Your task to perform on an android device: toggle data saver in the chrome app Image 0: 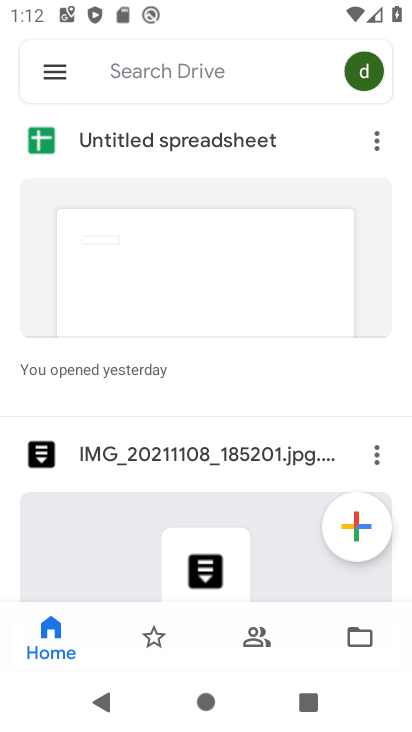
Step 0: press home button
Your task to perform on an android device: toggle data saver in the chrome app Image 1: 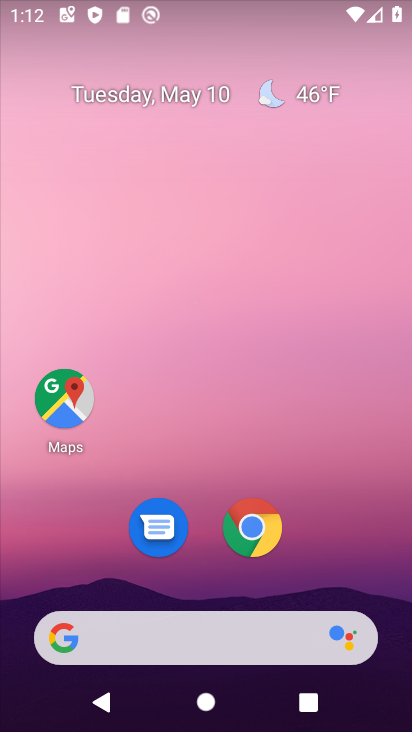
Step 1: click (253, 533)
Your task to perform on an android device: toggle data saver in the chrome app Image 2: 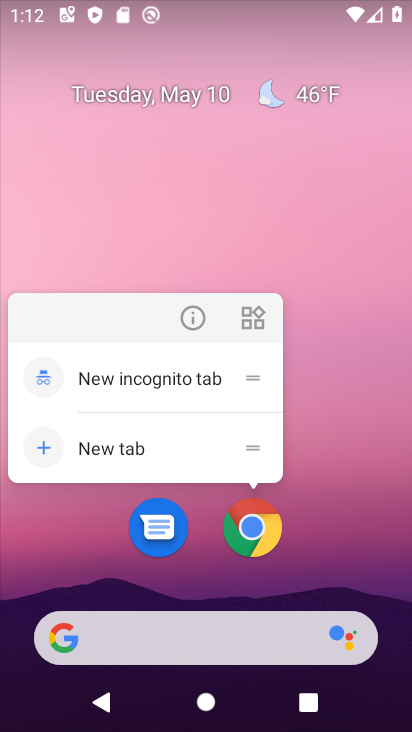
Step 2: click (253, 526)
Your task to perform on an android device: toggle data saver in the chrome app Image 3: 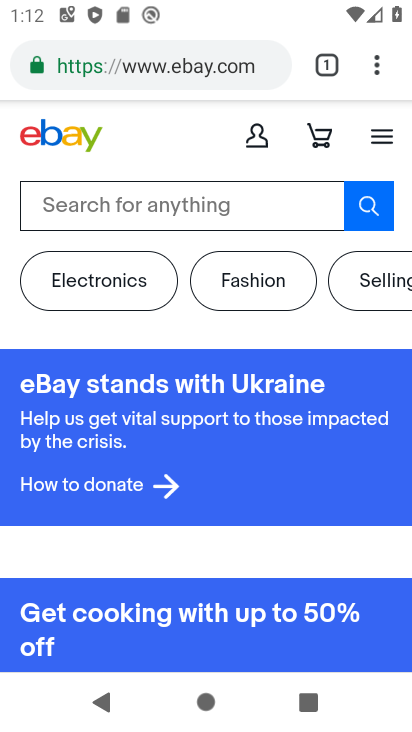
Step 3: drag from (377, 67) to (156, 582)
Your task to perform on an android device: toggle data saver in the chrome app Image 4: 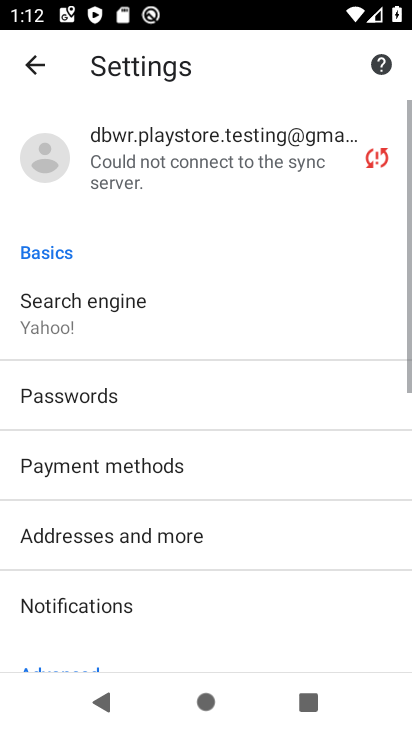
Step 4: drag from (156, 582) to (151, 273)
Your task to perform on an android device: toggle data saver in the chrome app Image 5: 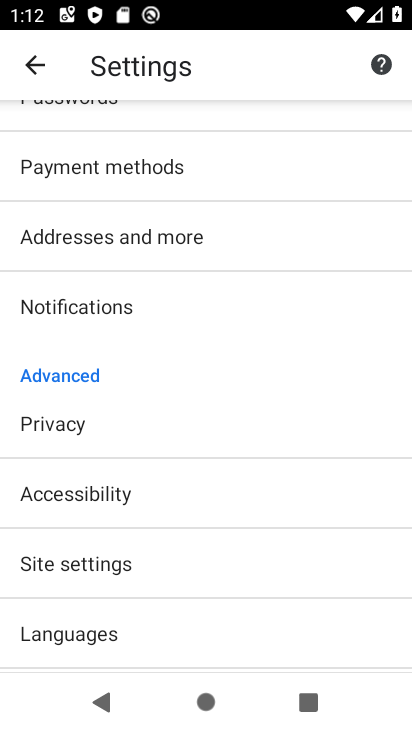
Step 5: drag from (224, 621) to (225, 354)
Your task to perform on an android device: toggle data saver in the chrome app Image 6: 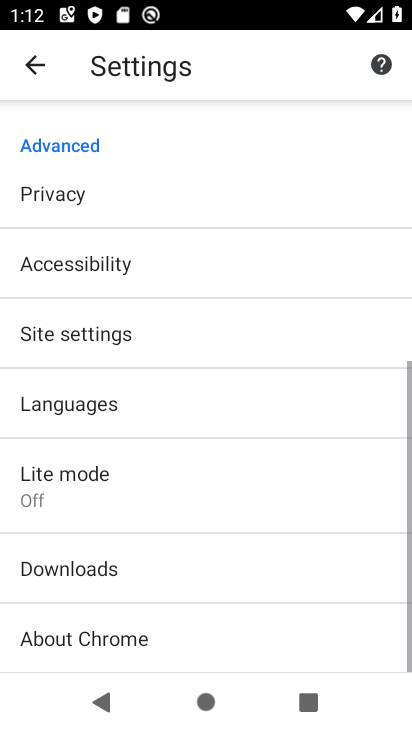
Step 6: click (68, 480)
Your task to perform on an android device: toggle data saver in the chrome app Image 7: 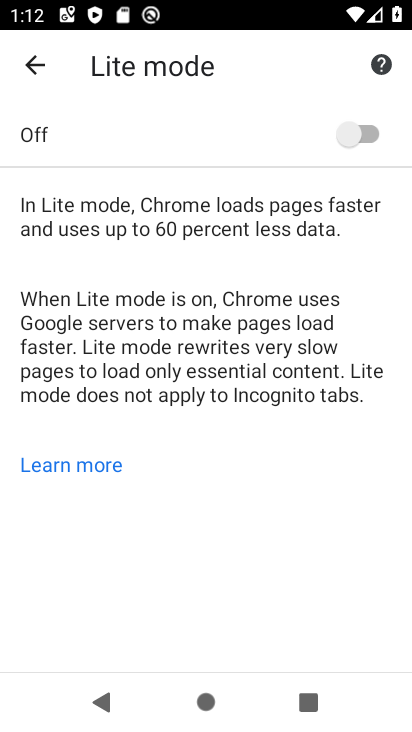
Step 7: click (346, 142)
Your task to perform on an android device: toggle data saver in the chrome app Image 8: 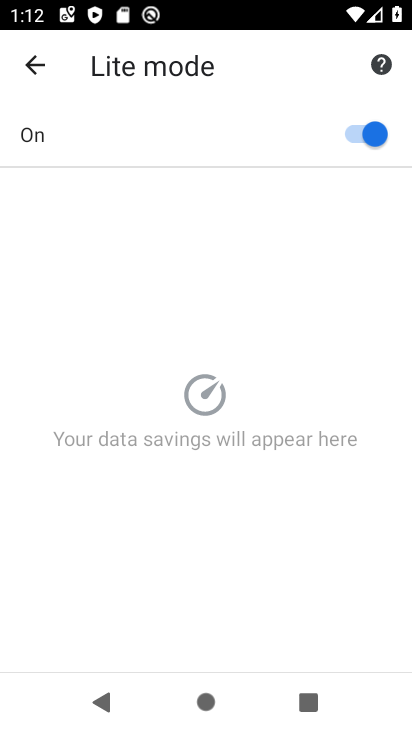
Step 8: task complete